Your task to perform on an android device: open app "Airtel Thanks" (install if not already installed), go to login, and select forgot password Image 0: 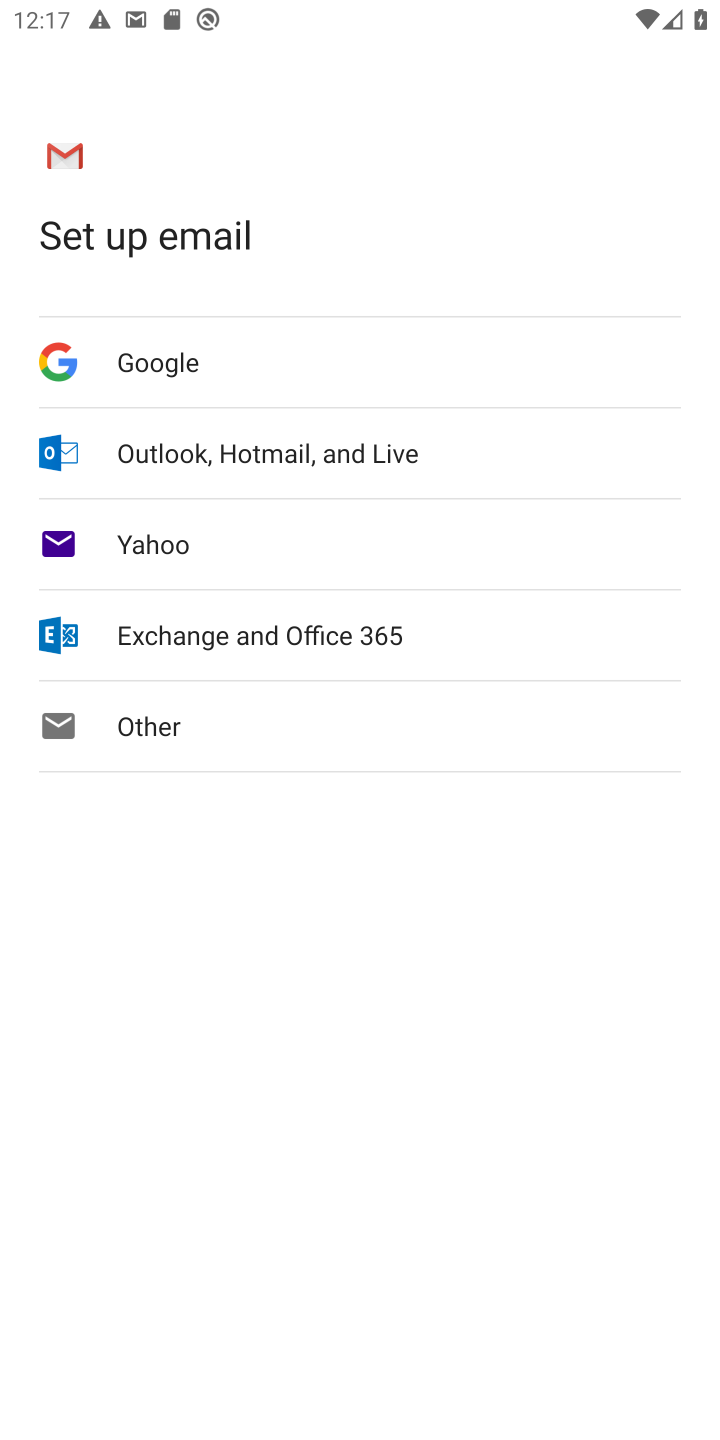
Step 0: press home button
Your task to perform on an android device: open app "Airtel Thanks" (install if not already installed), go to login, and select forgot password Image 1: 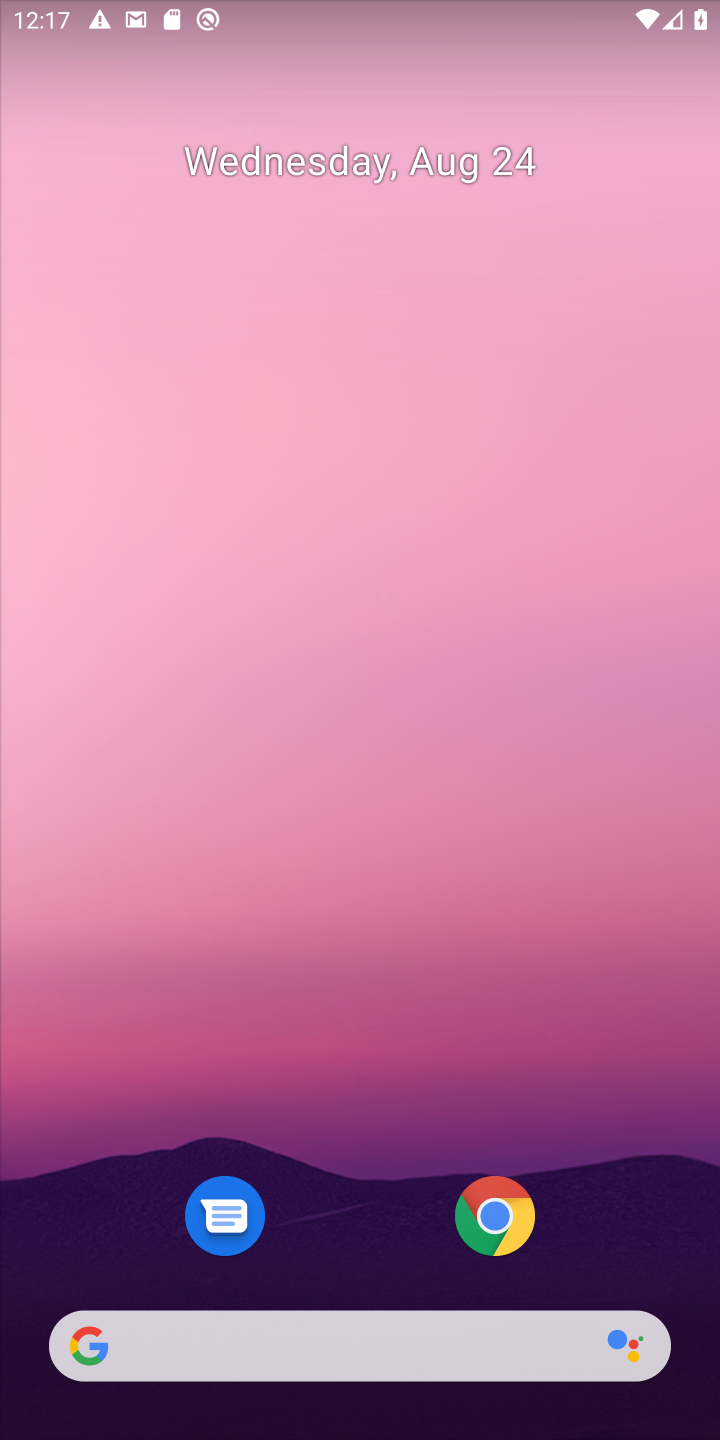
Step 1: drag from (342, 1314) to (288, 56)
Your task to perform on an android device: open app "Airtel Thanks" (install if not already installed), go to login, and select forgot password Image 2: 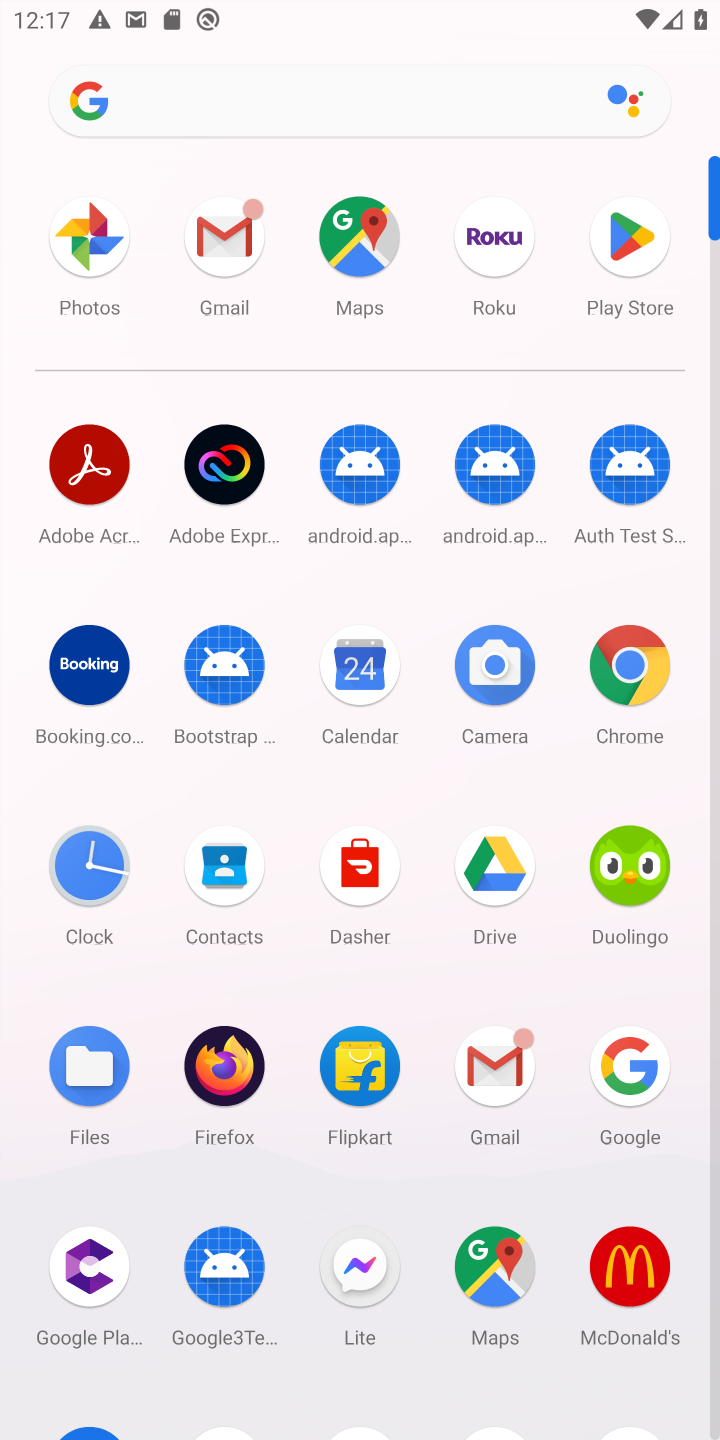
Step 2: click (646, 236)
Your task to perform on an android device: open app "Airtel Thanks" (install if not already installed), go to login, and select forgot password Image 3: 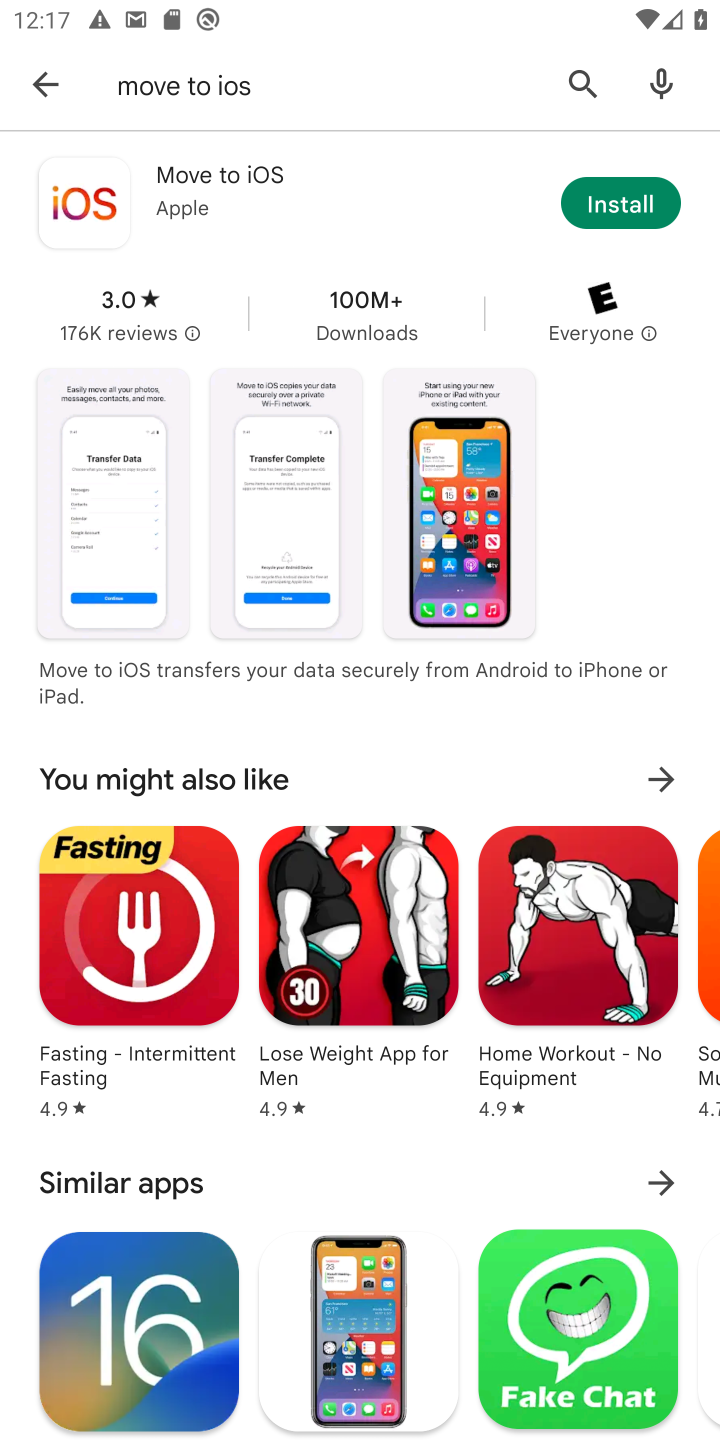
Step 3: press back button
Your task to perform on an android device: open app "Airtel Thanks" (install if not already installed), go to login, and select forgot password Image 4: 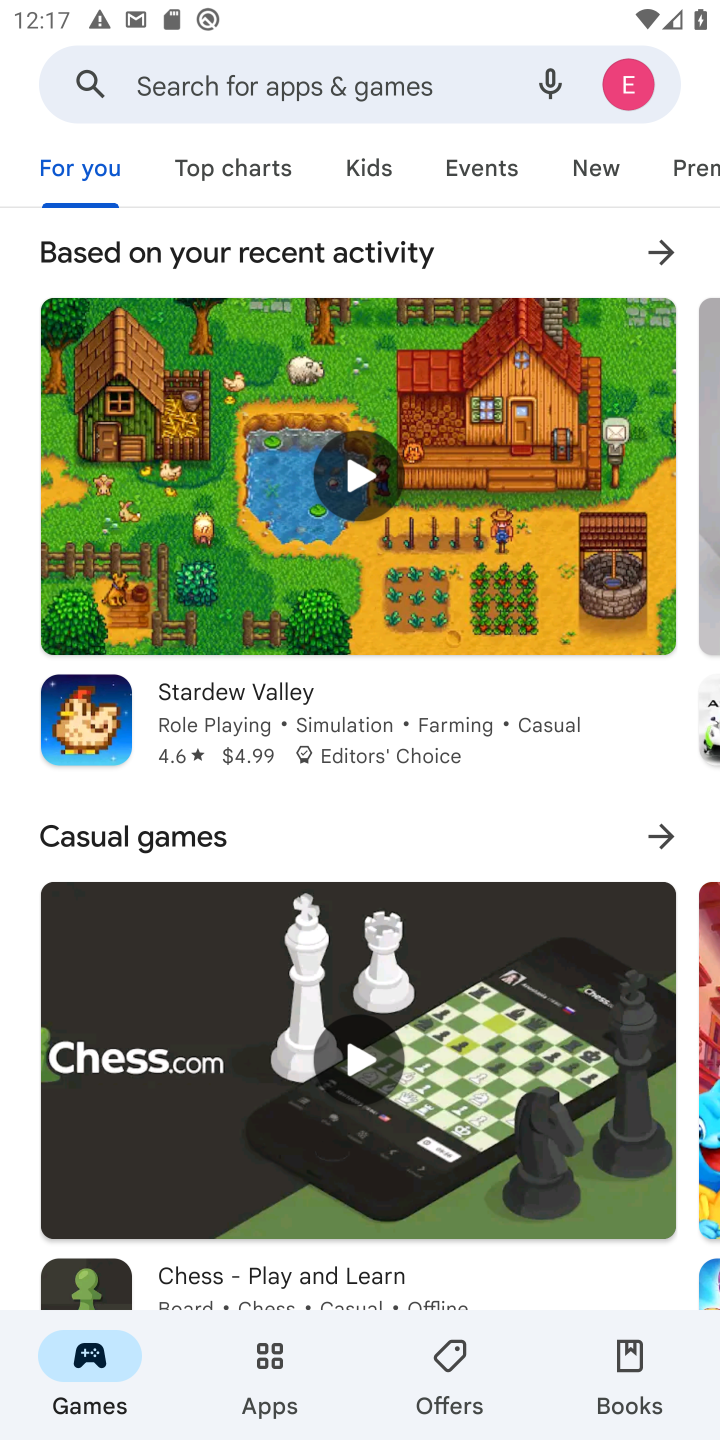
Step 4: click (372, 88)
Your task to perform on an android device: open app "Airtel Thanks" (install if not already installed), go to login, and select forgot password Image 5: 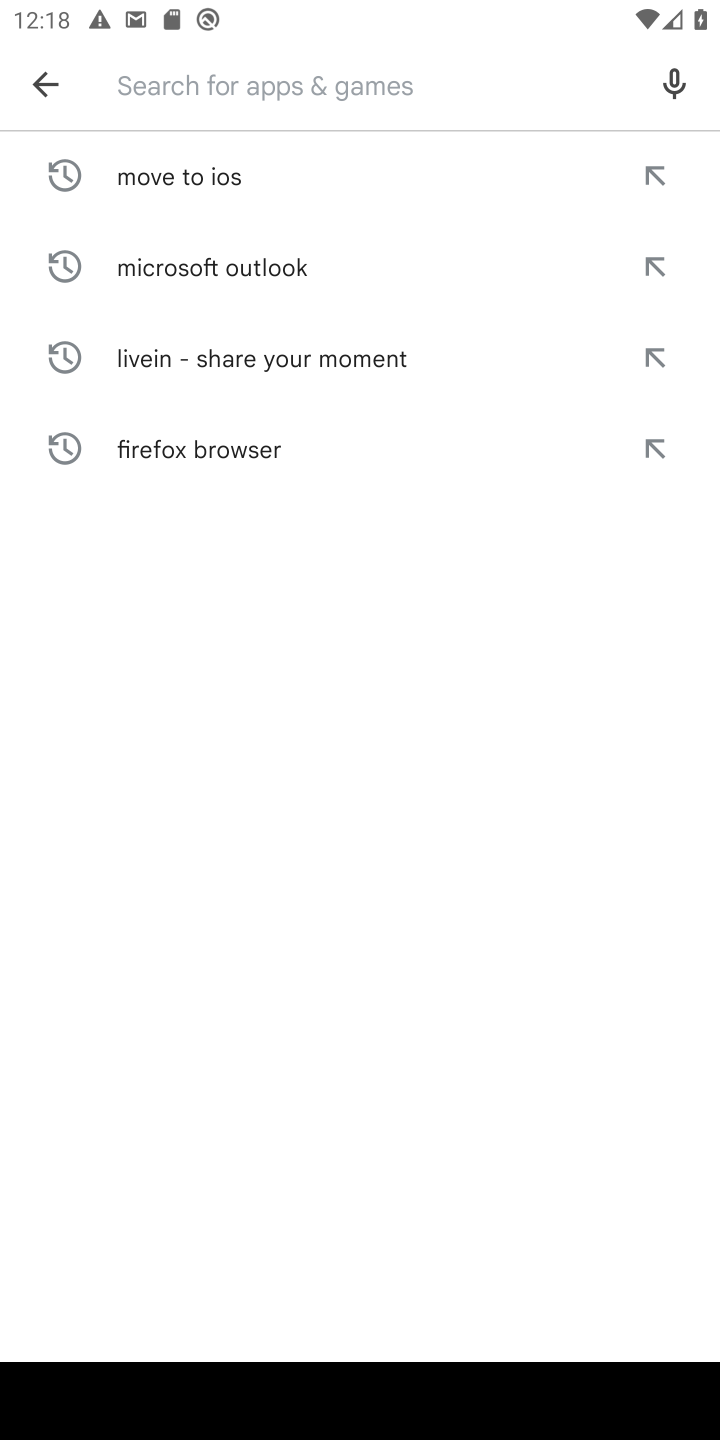
Step 5: type "Airtel Thanks"
Your task to perform on an android device: open app "Airtel Thanks" (install if not already installed), go to login, and select forgot password Image 6: 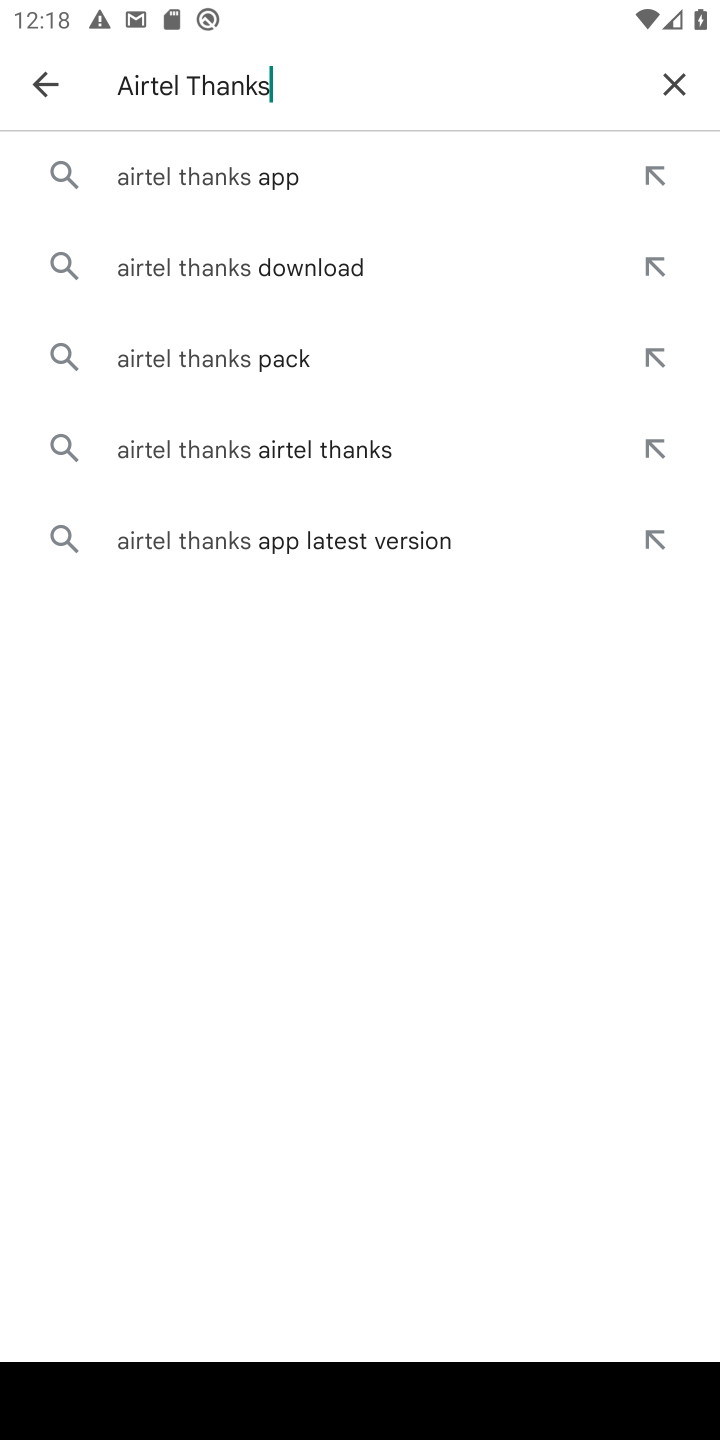
Step 6: click (229, 193)
Your task to perform on an android device: open app "Airtel Thanks" (install if not already installed), go to login, and select forgot password Image 7: 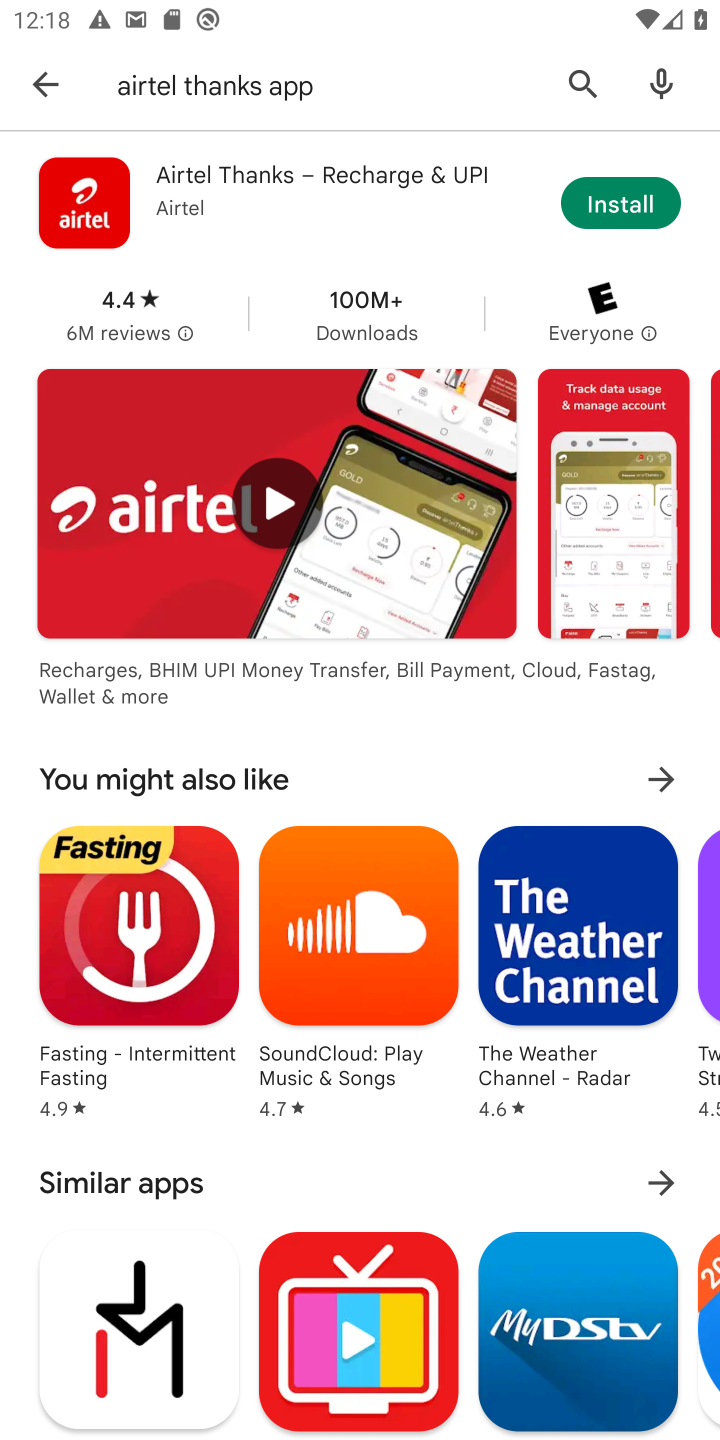
Step 7: click (616, 210)
Your task to perform on an android device: open app "Airtel Thanks" (install if not already installed), go to login, and select forgot password Image 8: 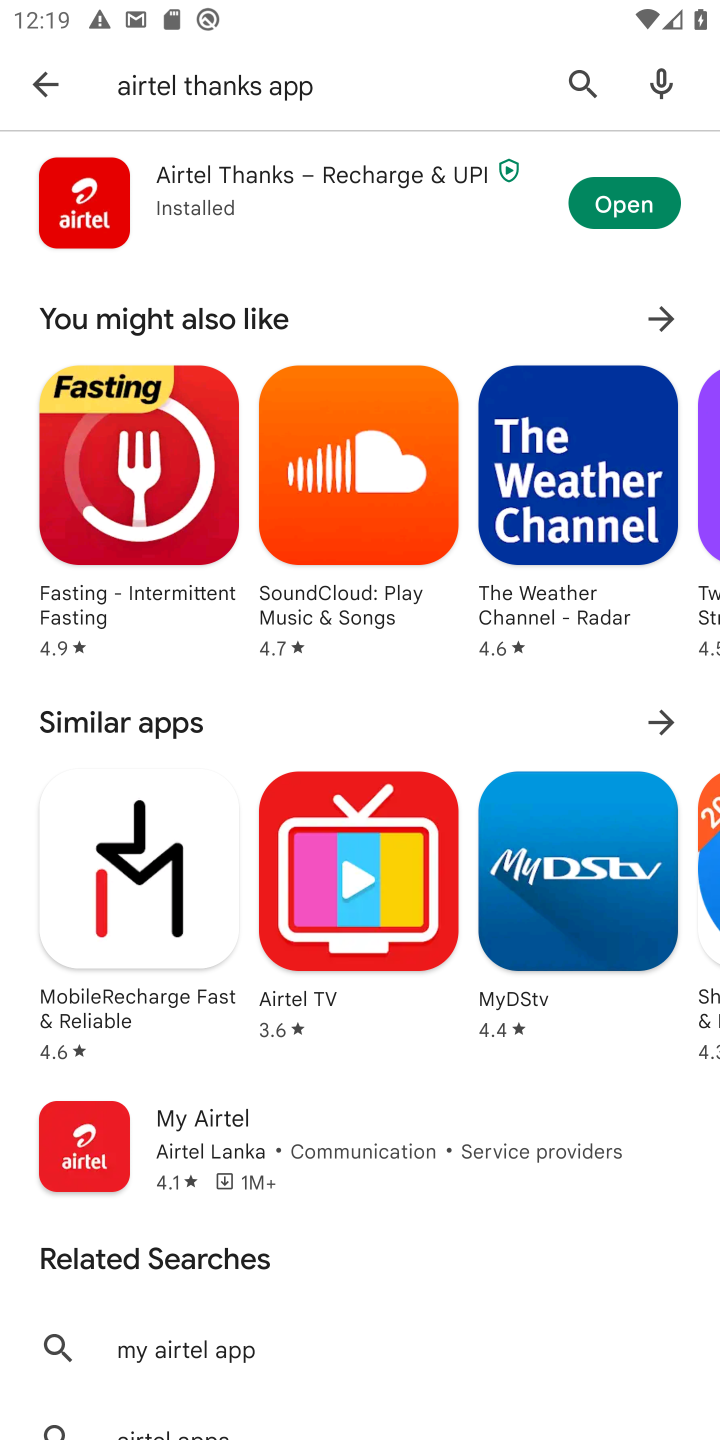
Step 8: click (625, 212)
Your task to perform on an android device: open app "Airtel Thanks" (install if not already installed), go to login, and select forgot password Image 9: 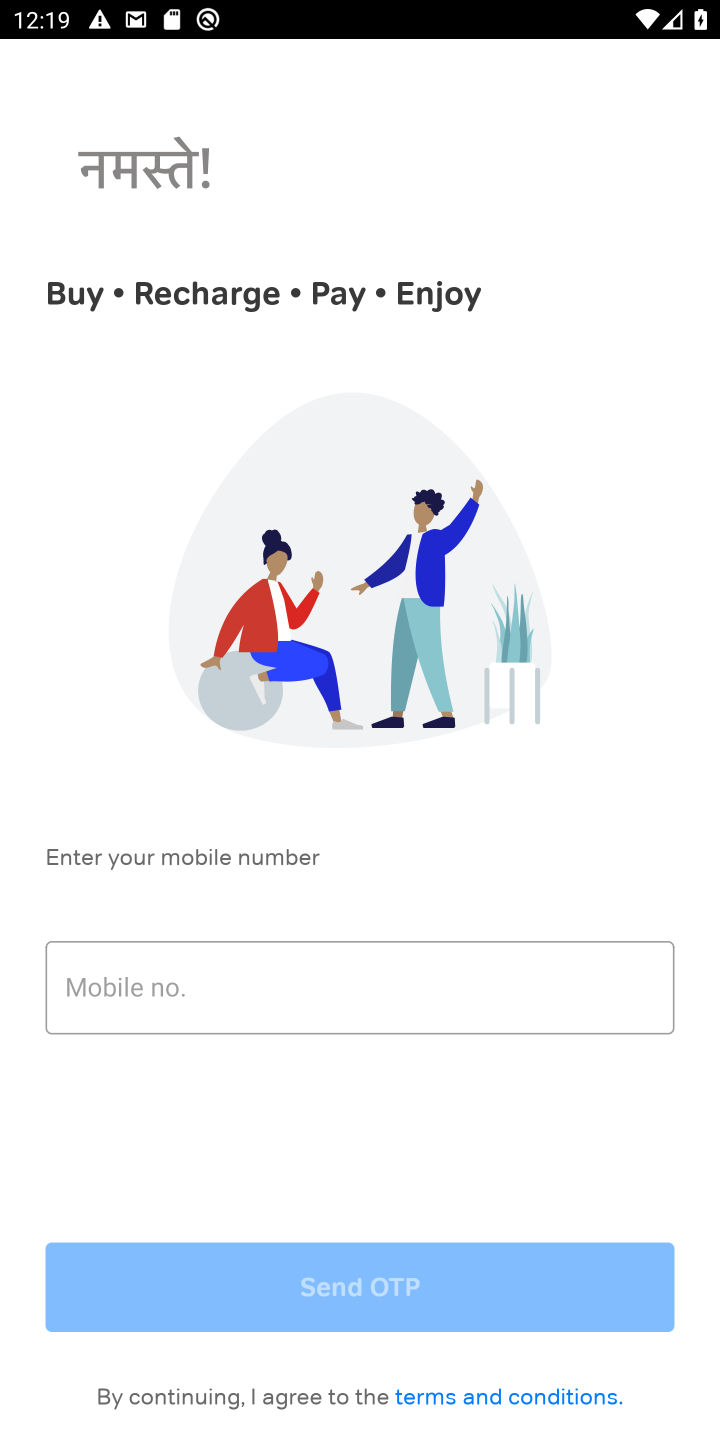
Step 9: task complete